Your task to perform on an android device: Open privacy settings Image 0: 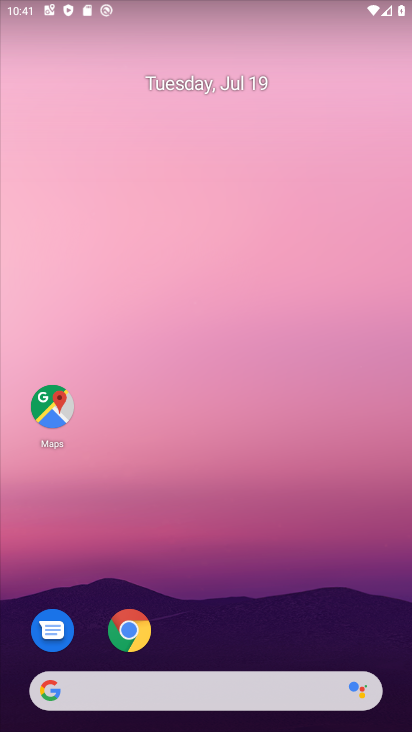
Step 0: drag from (40, 719) to (289, 18)
Your task to perform on an android device: Open privacy settings Image 1: 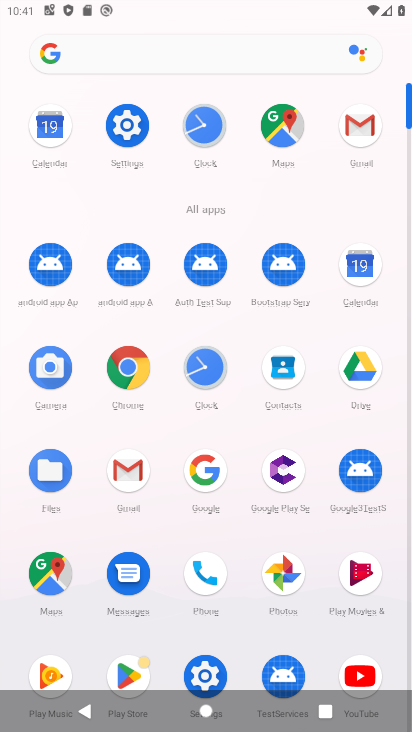
Step 1: click (131, 119)
Your task to perform on an android device: Open privacy settings Image 2: 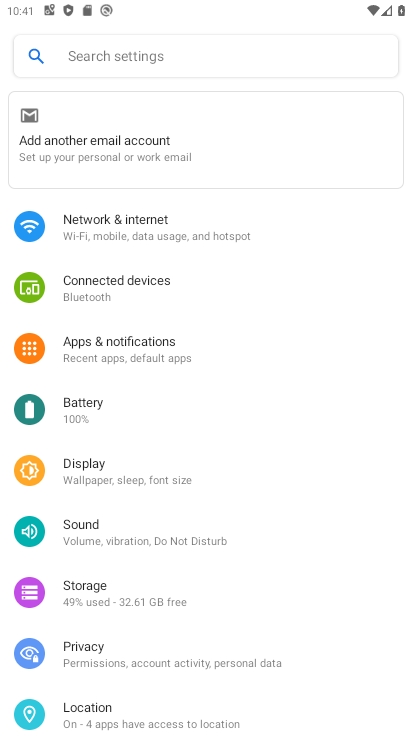
Step 2: click (138, 651)
Your task to perform on an android device: Open privacy settings Image 3: 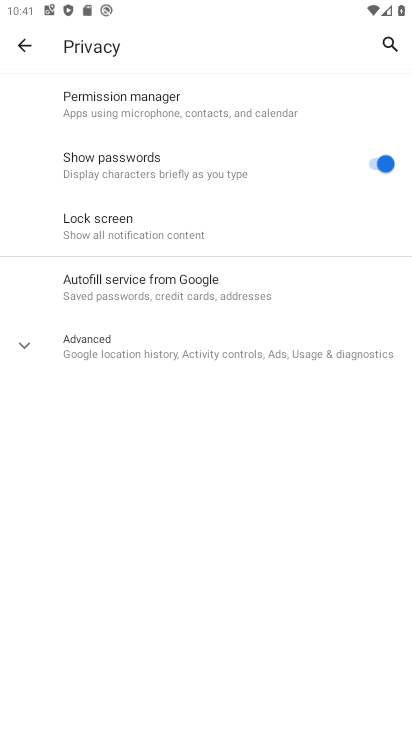
Step 3: task complete